Your task to perform on an android device: read, delete, or share a saved page in the chrome app Image 0: 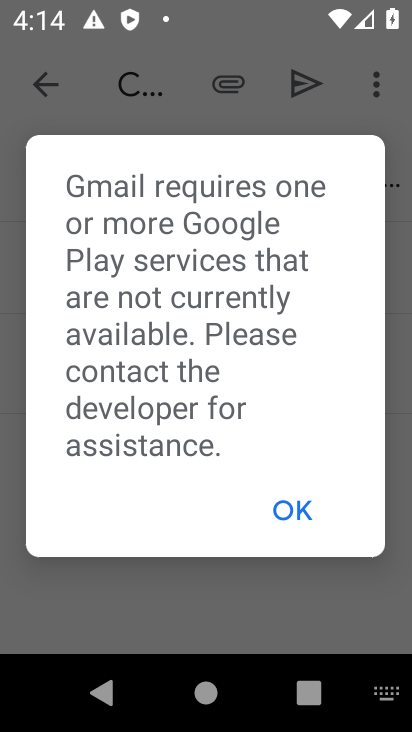
Step 0: press home button
Your task to perform on an android device: read, delete, or share a saved page in the chrome app Image 1: 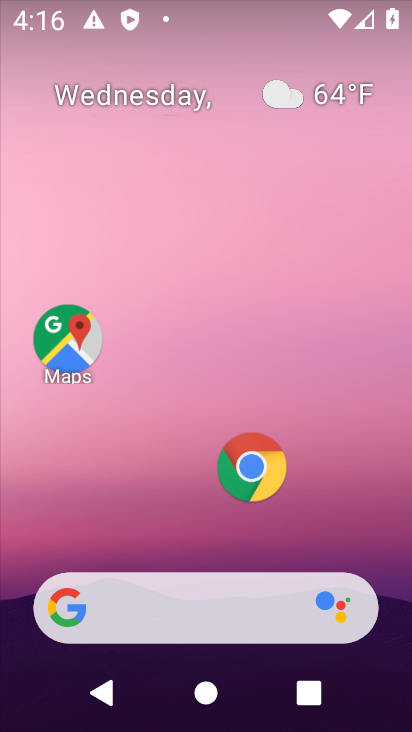
Step 1: click (257, 472)
Your task to perform on an android device: read, delete, or share a saved page in the chrome app Image 2: 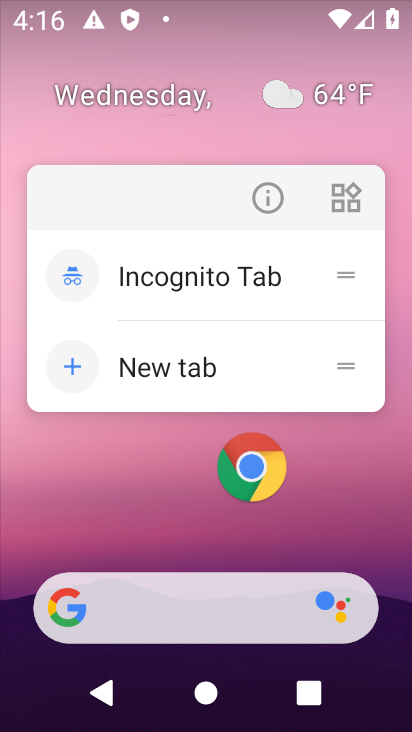
Step 2: task complete